Your task to perform on an android device: Open Reddit.com Image 0: 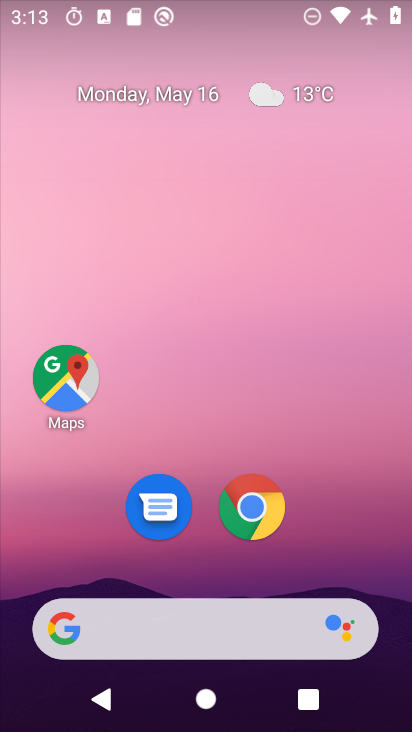
Step 0: drag from (256, 564) to (314, 233)
Your task to perform on an android device: Open Reddit.com Image 1: 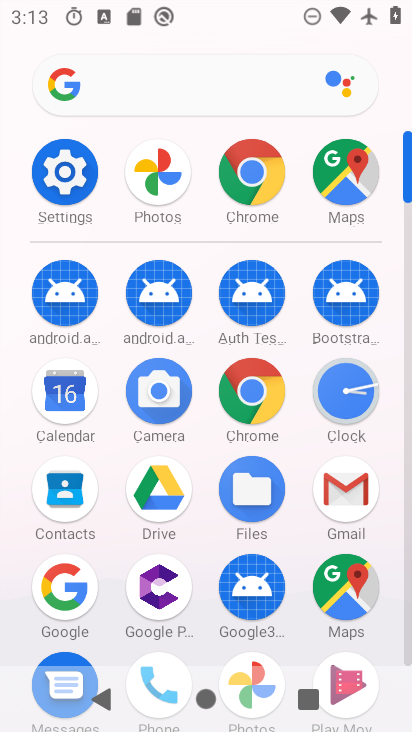
Step 1: click (254, 400)
Your task to perform on an android device: Open Reddit.com Image 2: 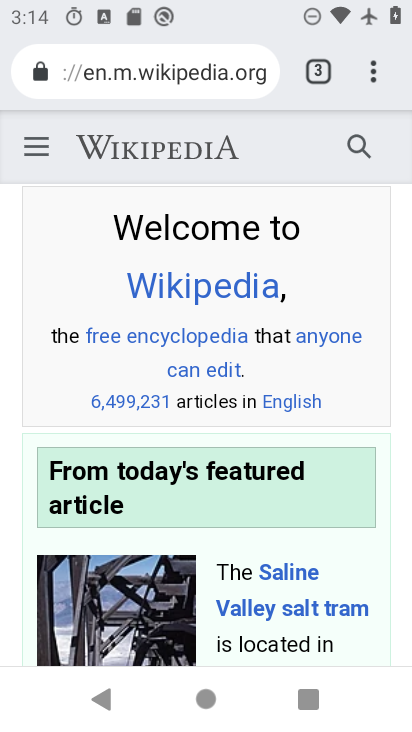
Step 2: click (322, 78)
Your task to perform on an android device: Open Reddit.com Image 3: 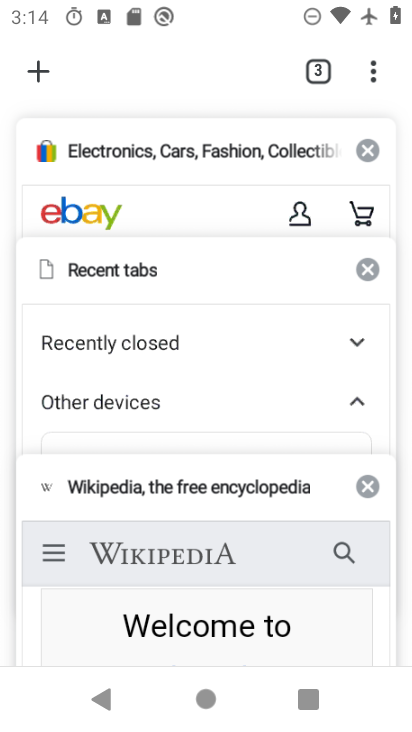
Step 3: click (33, 78)
Your task to perform on an android device: Open Reddit.com Image 4: 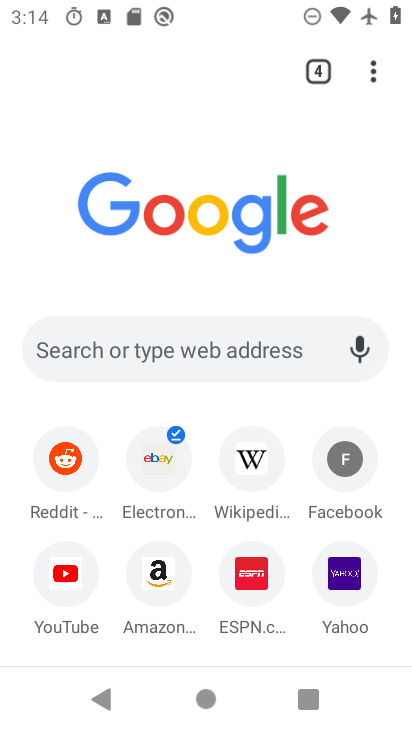
Step 4: click (180, 351)
Your task to perform on an android device: Open Reddit.com Image 5: 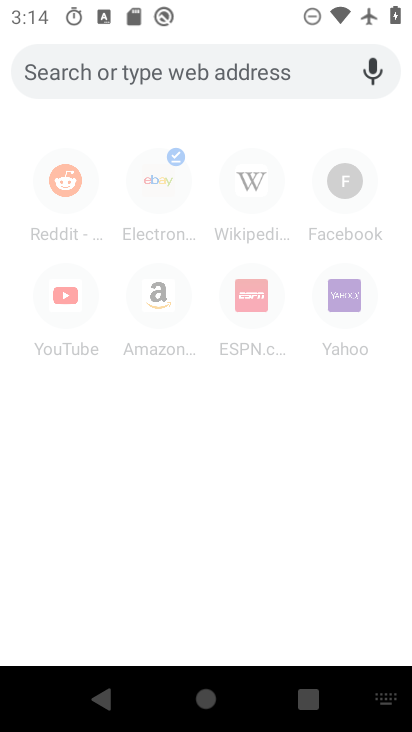
Step 5: type "Reddit.com"
Your task to perform on an android device: Open Reddit.com Image 6: 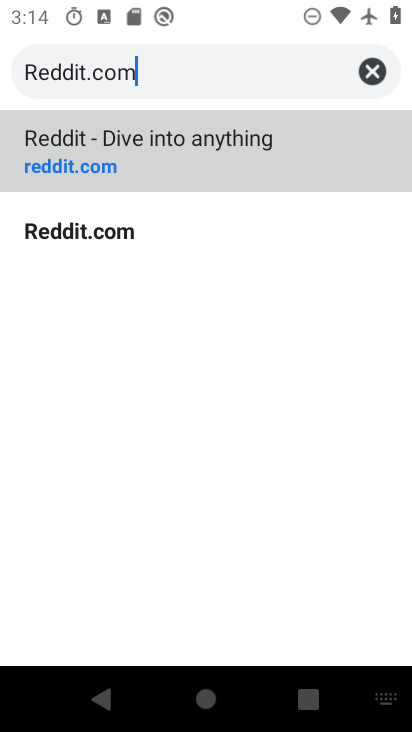
Step 6: type ""
Your task to perform on an android device: Open Reddit.com Image 7: 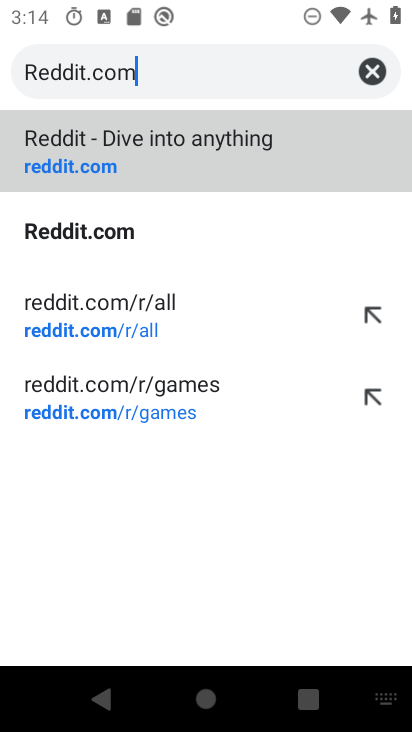
Step 7: click (225, 158)
Your task to perform on an android device: Open Reddit.com Image 8: 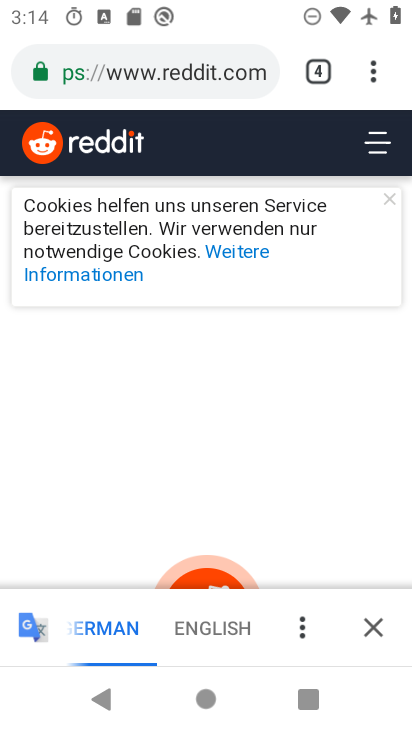
Step 8: click (363, 626)
Your task to perform on an android device: Open Reddit.com Image 9: 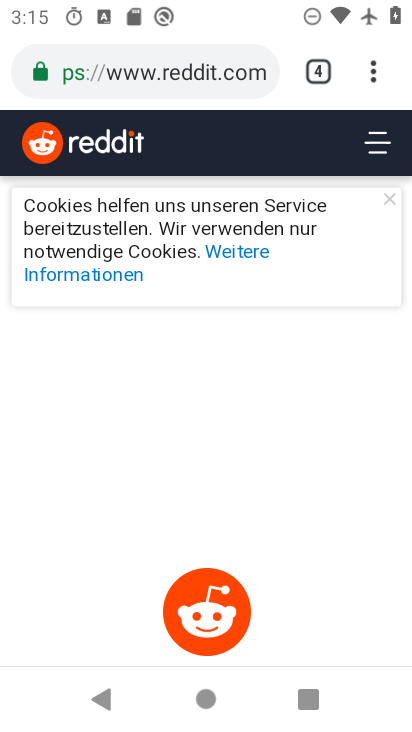
Step 9: task complete